Your task to perform on an android device: Show me popular games on the Play Store Image 0: 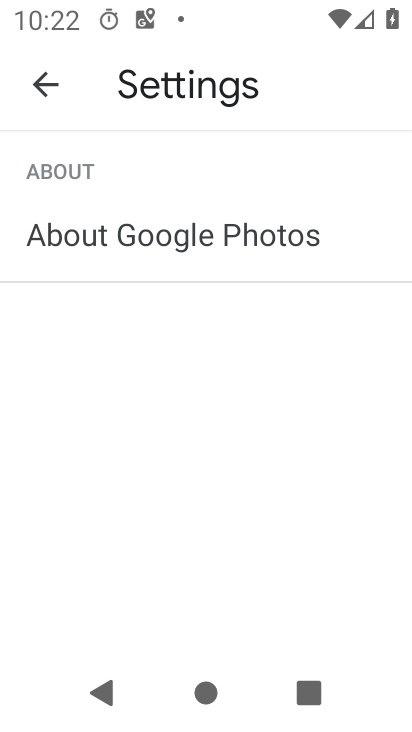
Step 0: press home button
Your task to perform on an android device: Show me popular games on the Play Store Image 1: 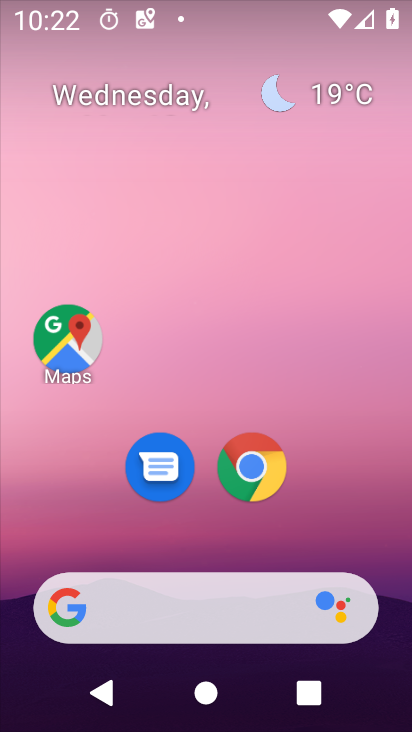
Step 1: drag from (305, 536) to (200, 58)
Your task to perform on an android device: Show me popular games on the Play Store Image 2: 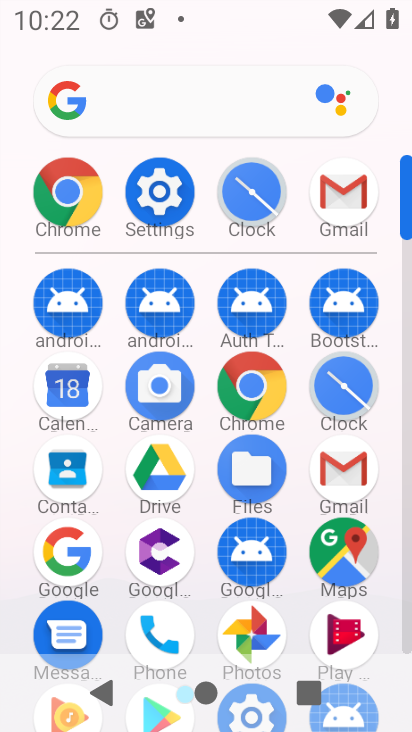
Step 2: drag from (203, 635) to (189, 290)
Your task to perform on an android device: Show me popular games on the Play Store Image 3: 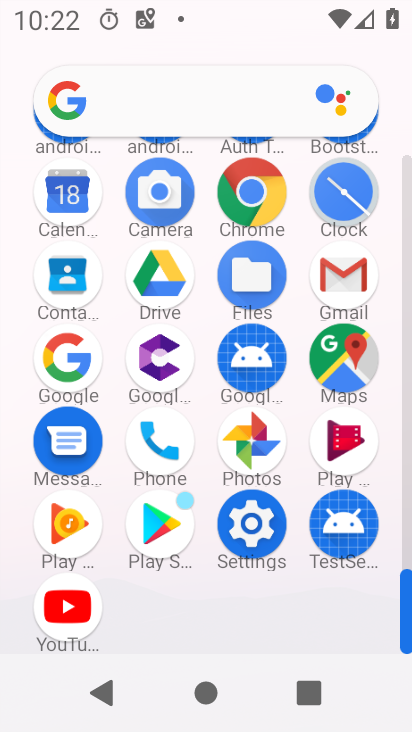
Step 3: click (164, 535)
Your task to perform on an android device: Show me popular games on the Play Store Image 4: 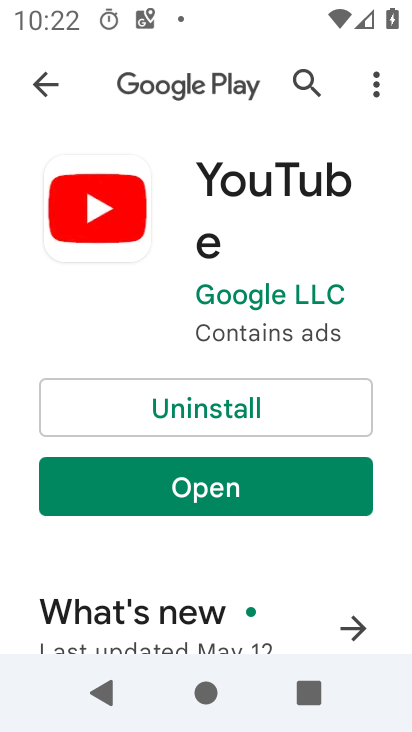
Step 4: click (45, 87)
Your task to perform on an android device: Show me popular games on the Play Store Image 5: 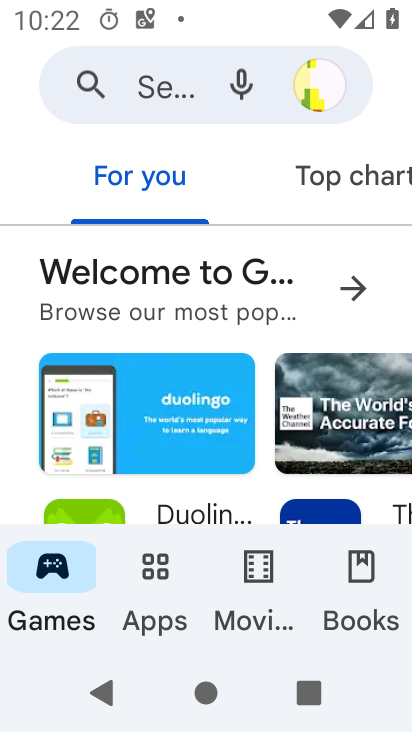
Step 5: click (335, 174)
Your task to perform on an android device: Show me popular games on the Play Store Image 6: 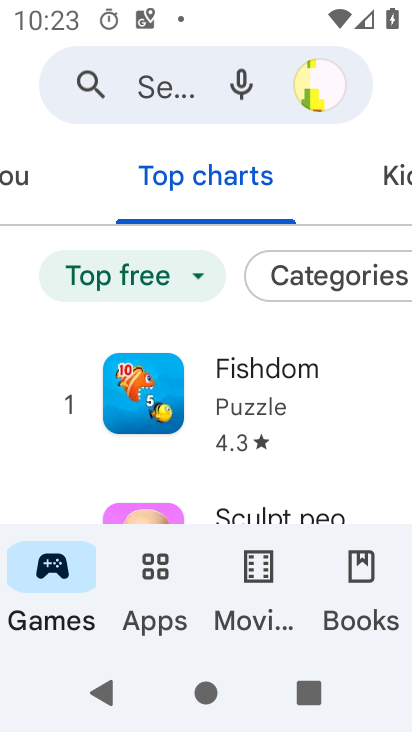
Step 6: task complete